Your task to perform on an android device: uninstall "Google Chat" Image 0: 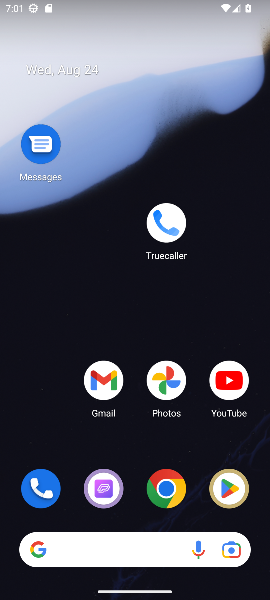
Step 0: drag from (133, 513) to (110, 87)
Your task to perform on an android device: uninstall "Google Chat" Image 1: 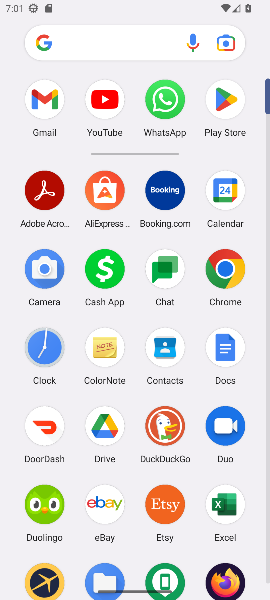
Step 1: click (217, 109)
Your task to perform on an android device: uninstall "Google Chat" Image 2: 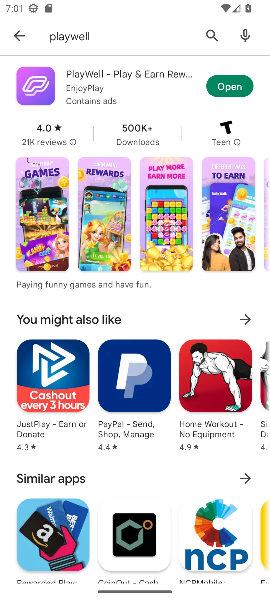
Step 2: click (213, 36)
Your task to perform on an android device: uninstall "Google Chat" Image 3: 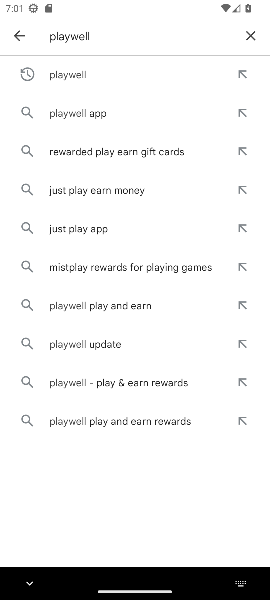
Step 3: click (258, 38)
Your task to perform on an android device: uninstall "Google Chat" Image 4: 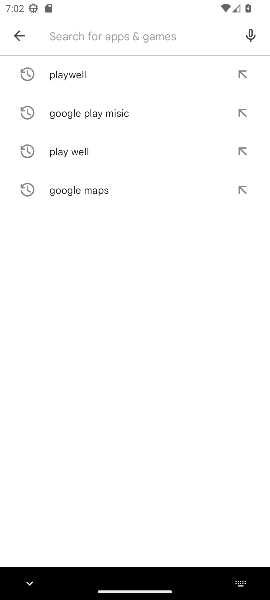
Step 4: type "google chat"
Your task to perform on an android device: uninstall "Google Chat" Image 5: 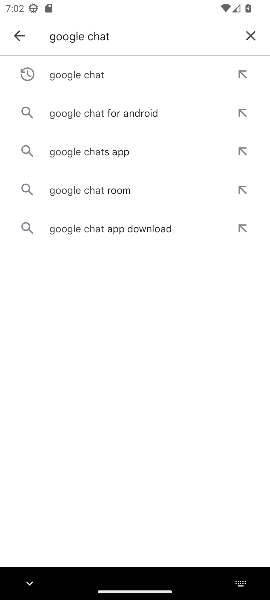
Step 5: click (57, 52)
Your task to perform on an android device: uninstall "Google Chat" Image 6: 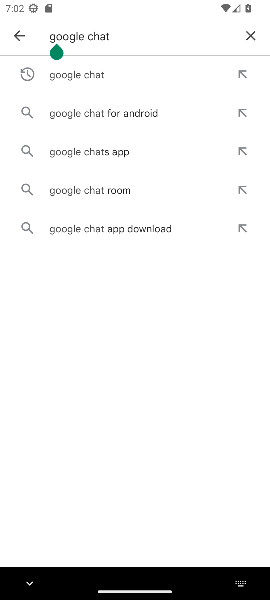
Step 6: click (103, 81)
Your task to perform on an android device: uninstall "Google Chat" Image 7: 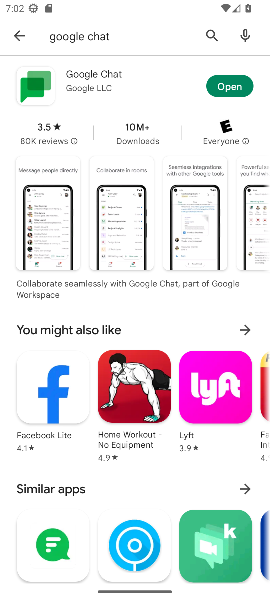
Step 7: click (204, 89)
Your task to perform on an android device: uninstall "Google Chat" Image 8: 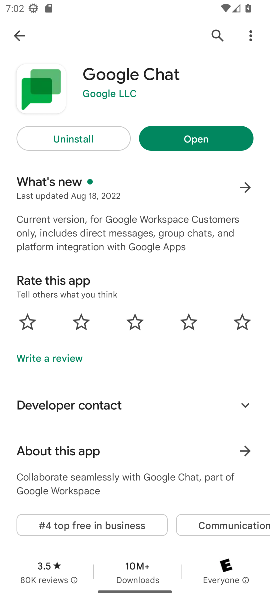
Step 8: task complete